Your task to perform on an android device: Open sound settings Image 0: 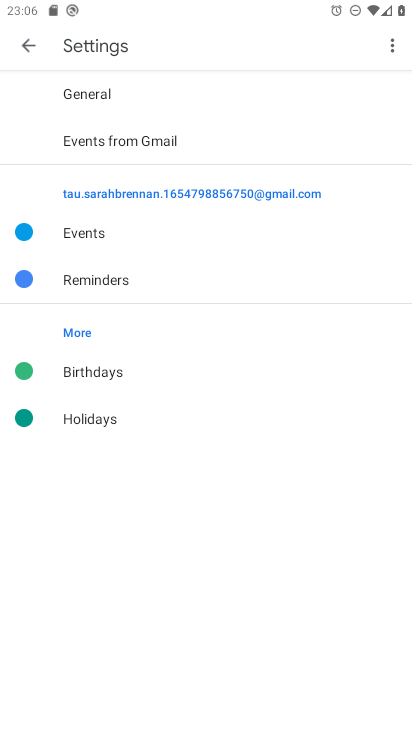
Step 0: press home button
Your task to perform on an android device: Open sound settings Image 1: 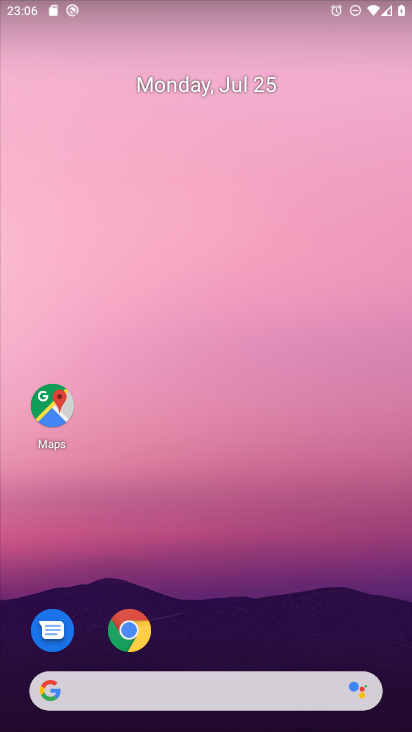
Step 1: drag from (257, 612) to (197, 28)
Your task to perform on an android device: Open sound settings Image 2: 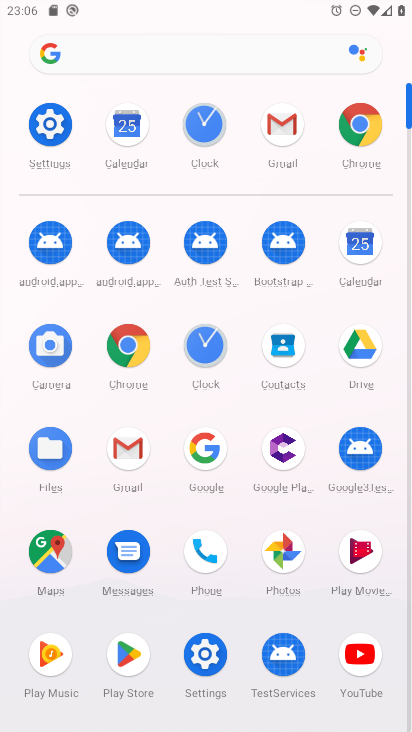
Step 2: click (42, 118)
Your task to perform on an android device: Open sound settings Image 3: 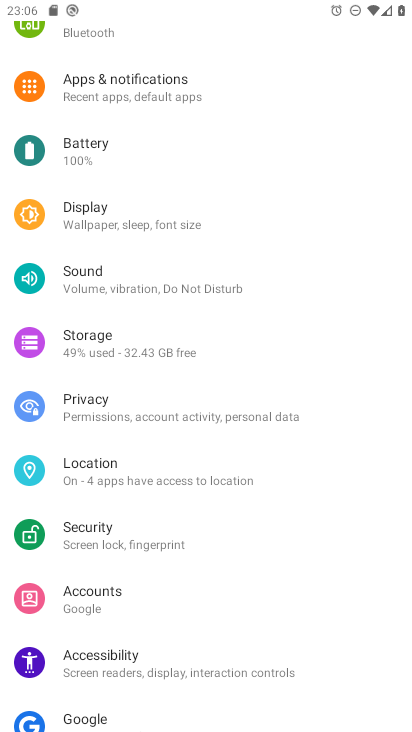
Step 3: click (133, 292)
Your task to perform on an android device: Open sound settings Image 4: 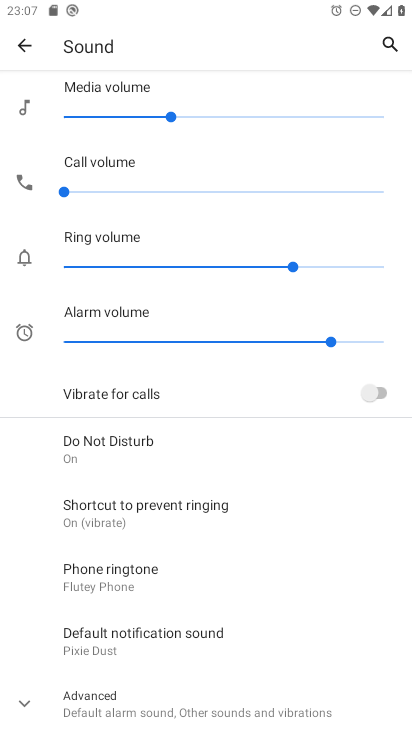
Step 4: task complete